Your task to perform on an android device: uninstall "Nova Launcher" Image 0: 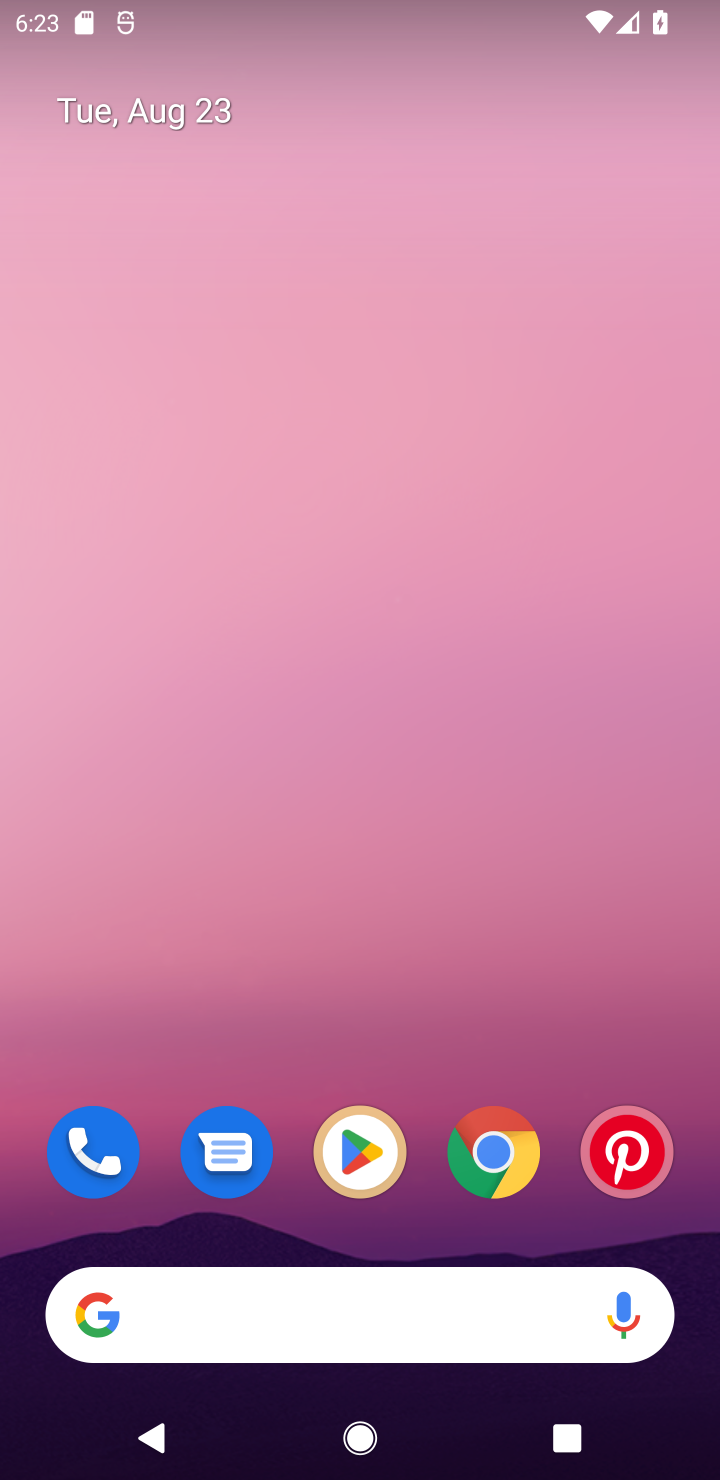
Step 0: click (361, 1154)
Your task to perform on an android device: uninstall "Nova Launcher" Image 1: 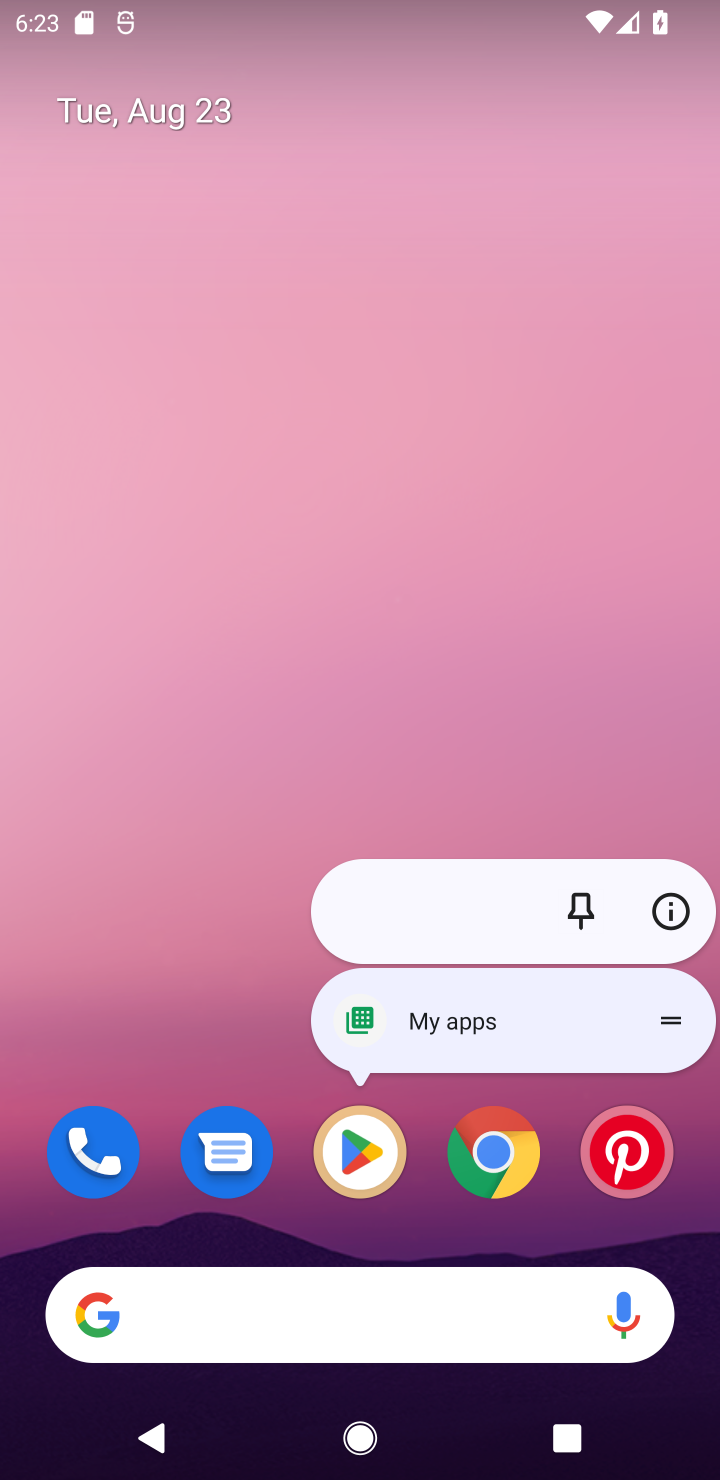
Step 1: click (364, 1146)
Your task to perform on an android device: uninstall "Nova Launcher" Image 2: 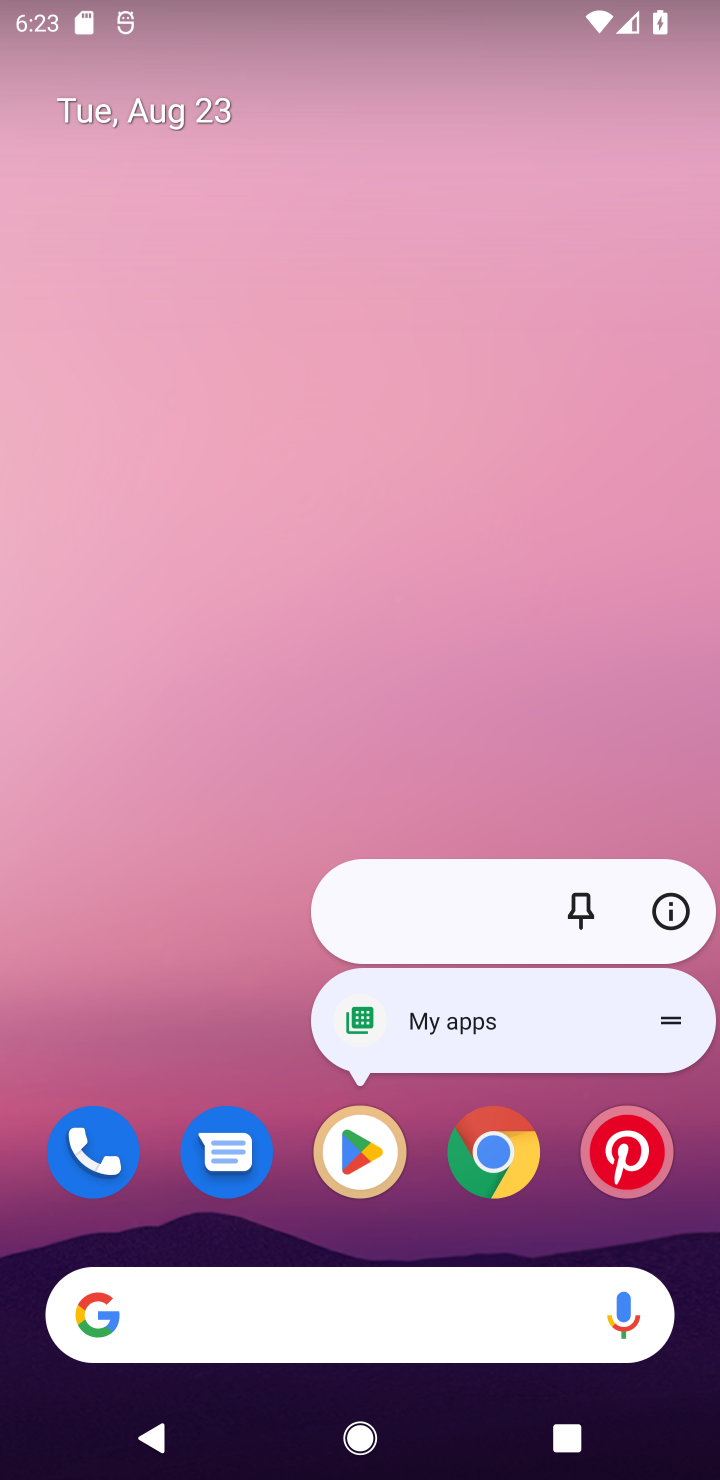
Step 2: click (366, 1158)
Your task to perform on an android device: uninstall "Nova Launcher" Image 3: 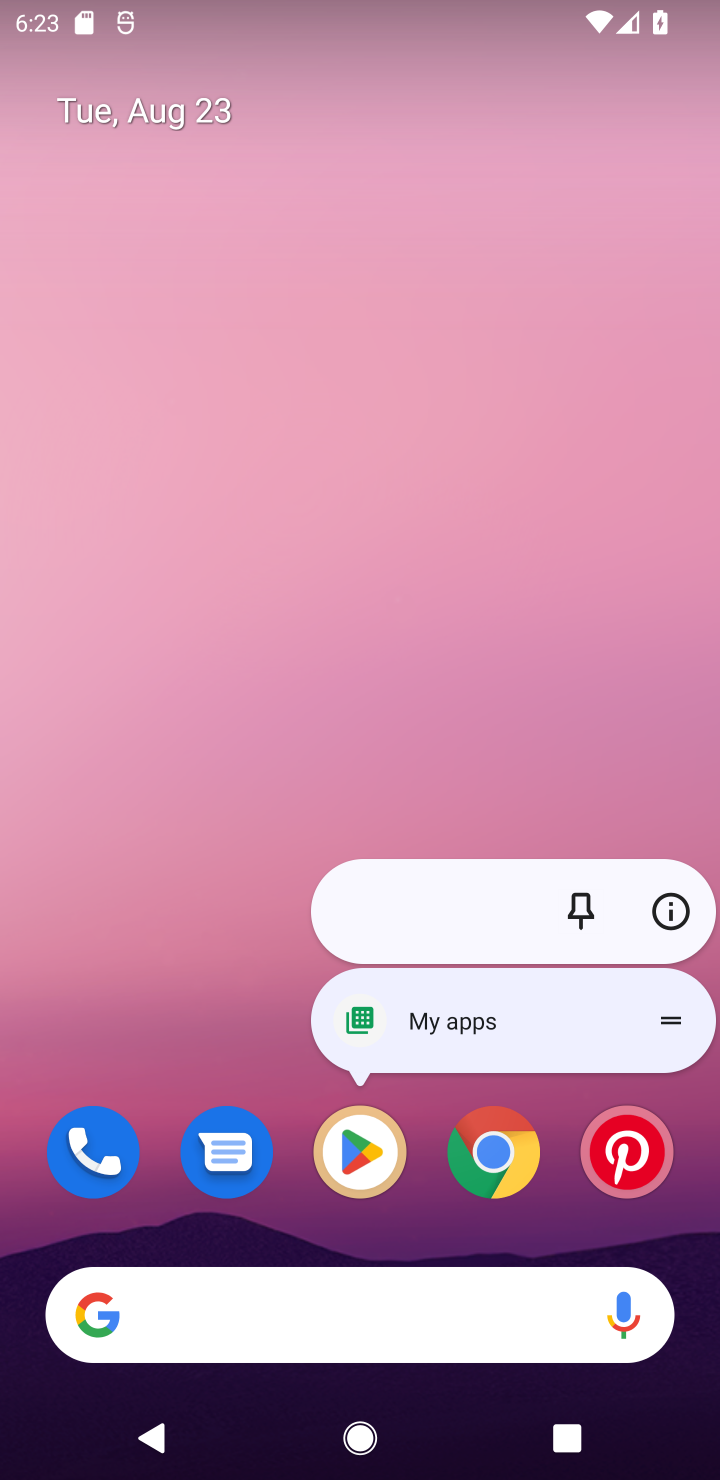
Step 3: click (356, 1158)
Your task to perform on an android device: uninstall "Nova Launcher" Image 4: 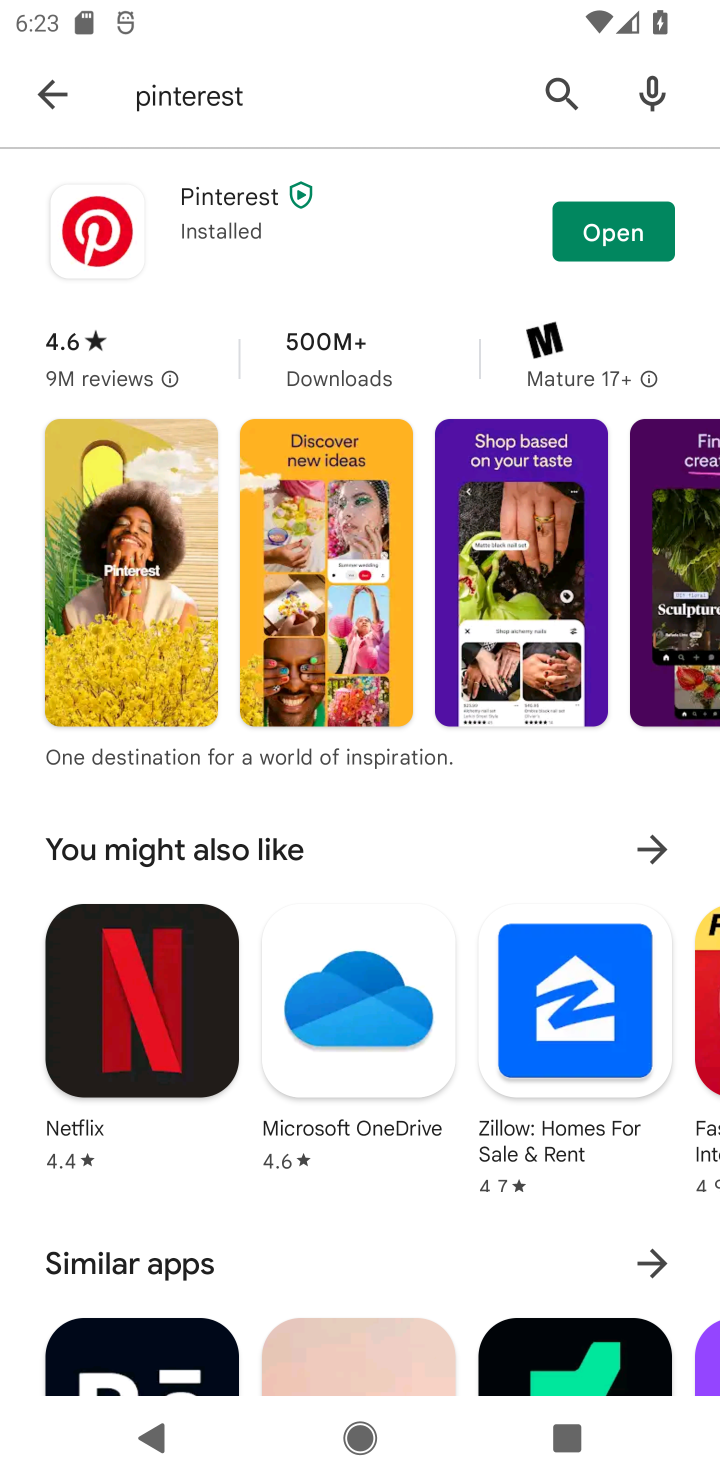
Step 4: click (568, 67)
Your task to perform on an android device: uninstall "Nova Launcher" Image 5: 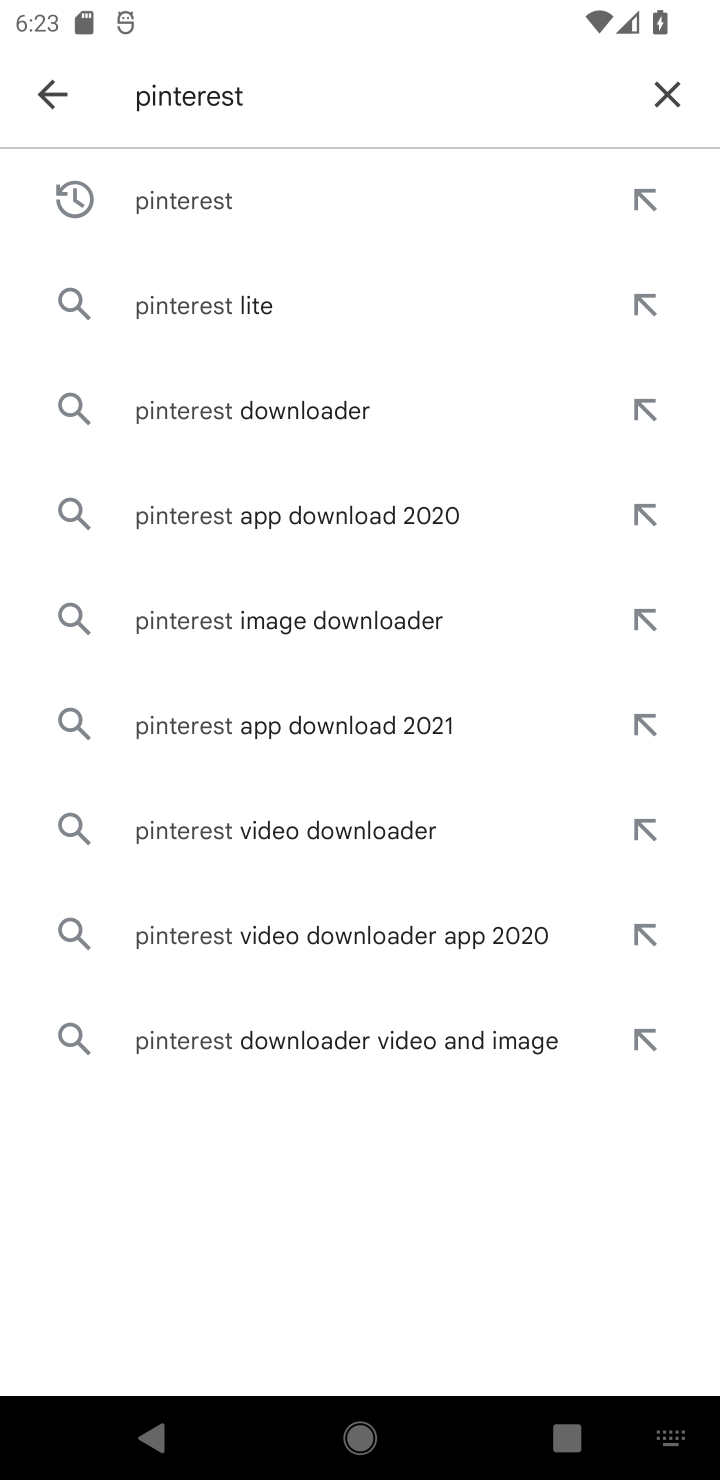
Step 5: click (674, 97)
Your task to perform on an android device: uninstall "Nova Launcher" Image 6: 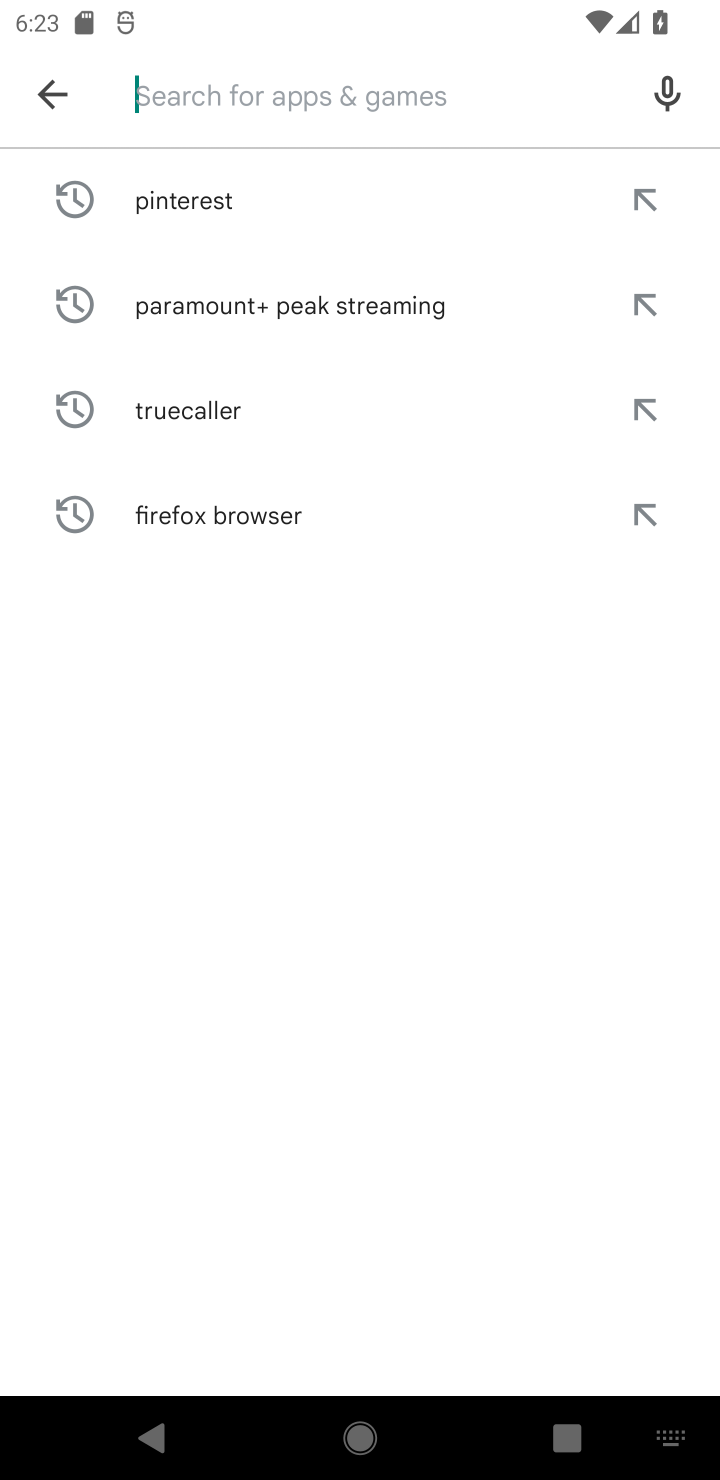
Step 6: click (244, 54)
Your task to perform on an android device: uninstall "Nova Launcher" Image 7: 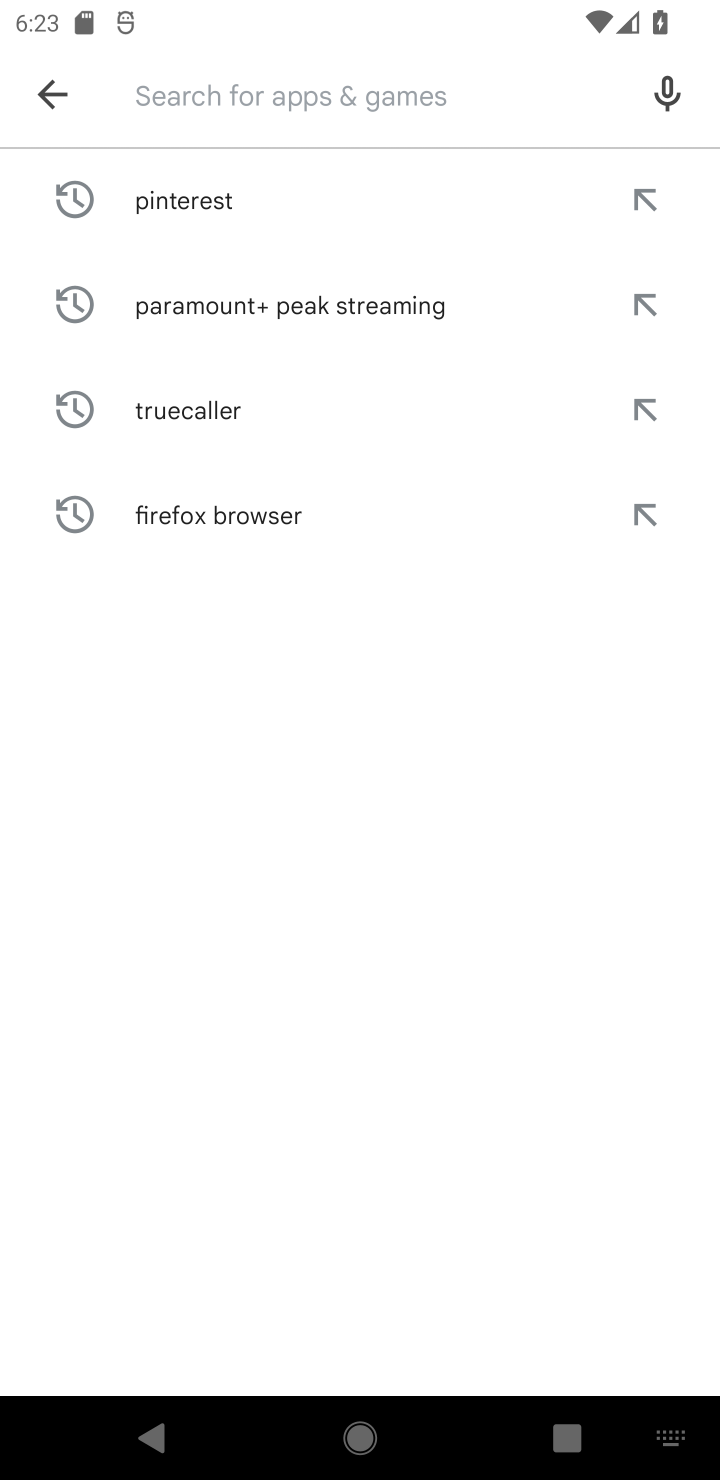
Step 7: type "nova launcher"
Your task to perform on an android device: uninstall "Nova Launcher" Image 8: 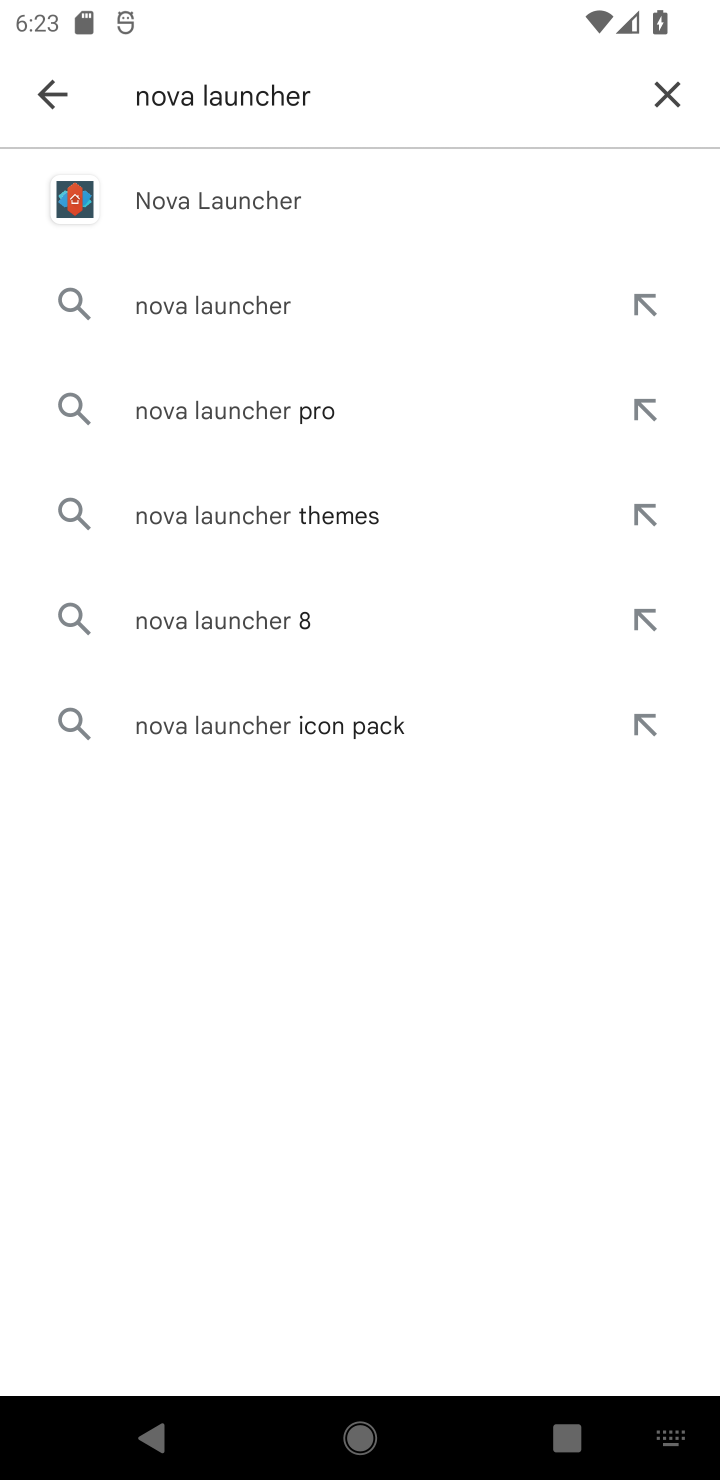
Step 8: click (245, 193)
Your task to perform on an android device: uninstall "Nova Launcher" Image 9: 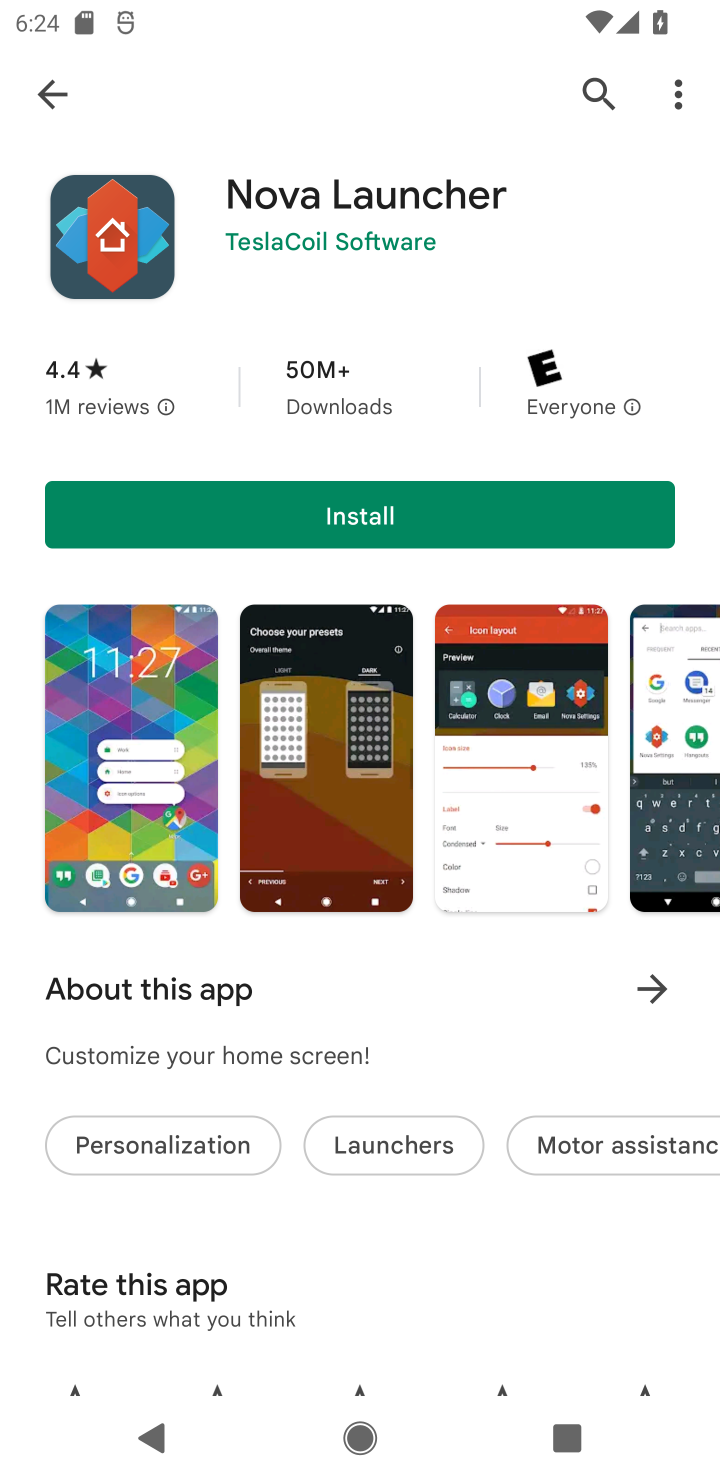
Step 9: task complete